Your task to perform on an android device: Go to Yahoo.com Image 0: 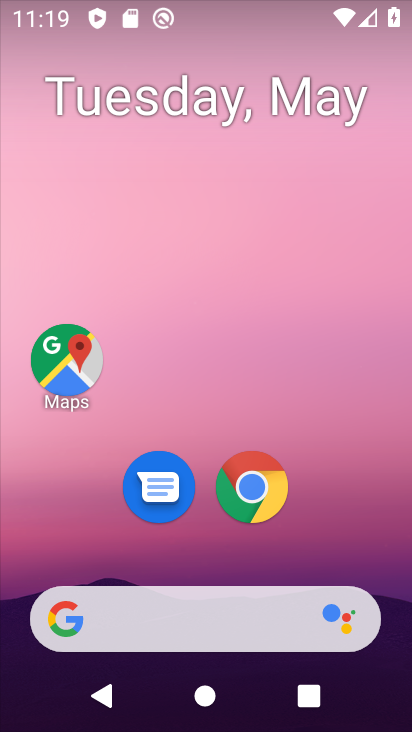
Step 0: click (270, 502)
Your task to perform on an android device: Go to Yahoo.com Image 1: 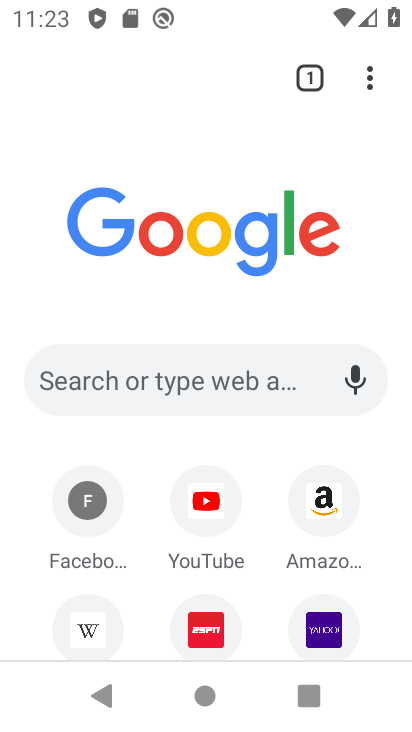
Step 1: click (321, 636)
Your task to perform on an android device: Go to Yahoo.com Image 2: 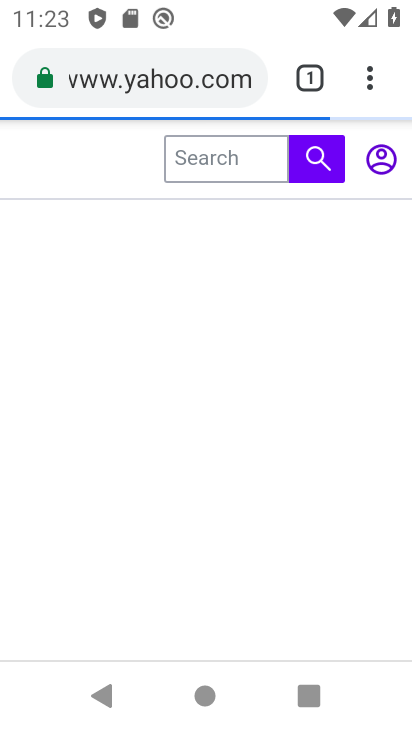
Step 2: task complete